Your task to perform on an android device: find which apps use the phone's location Image 0: 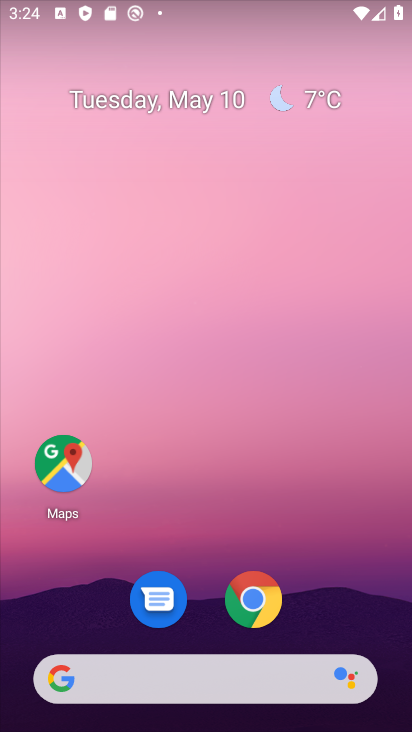
Step 0: drag from (191, 712) to (192, 47)
Your task to perform on an android device: find which apps use the phone's location Image 1: 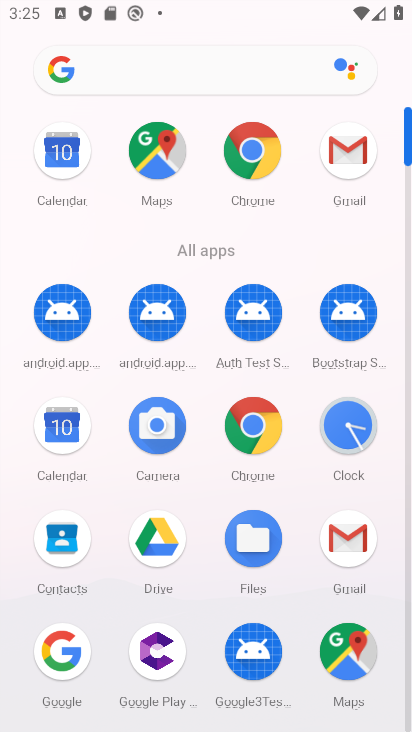
Step 1: drag from (263, 526) to (247, 245)
Your task to perform on an android device: find which apps use the phone's location Image 2: 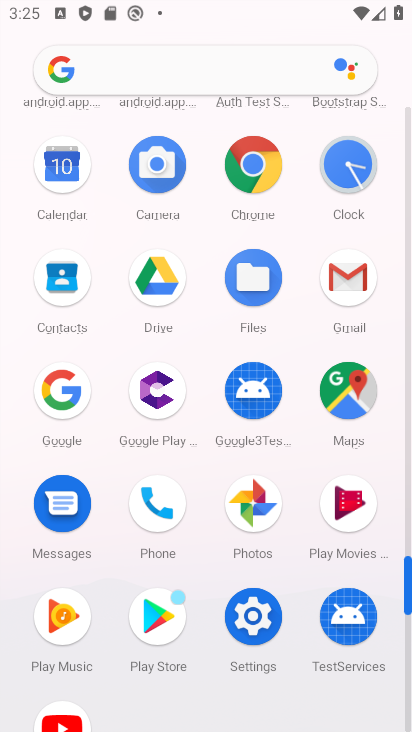
Step 2: click (249, 607)
Your task to perform on an android device: find which apps use the phone's location Image 3: 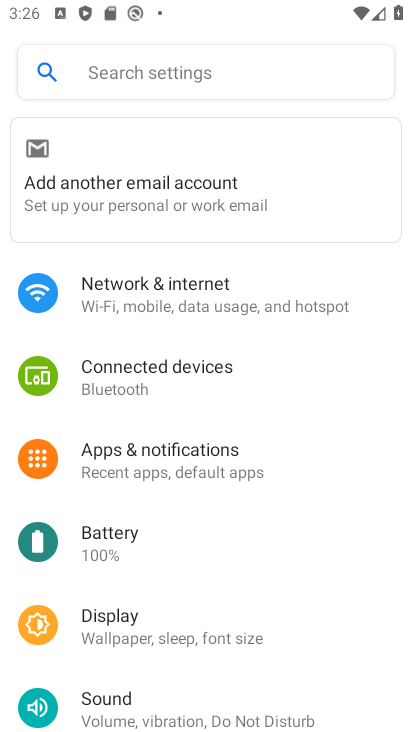
Step 3: drag from (173, 555) to (173, 323)
Your task to perform on an android device: find which apps use the phone's location Image 4: 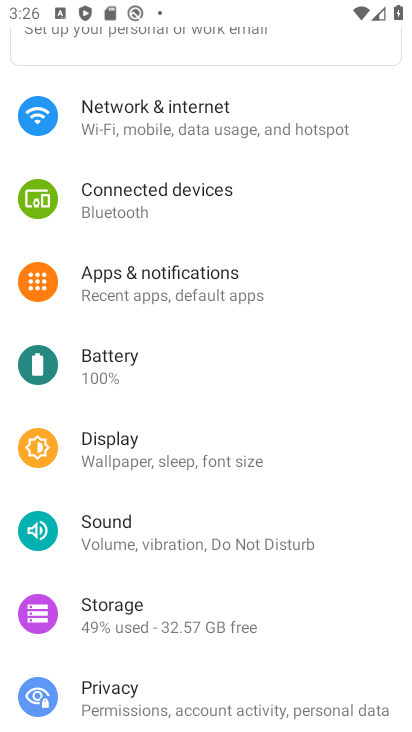
Step 4: drag from (188, 445) to (180, 328)
Your task to perform on an android device: find which apps use the phone's location Image 5: 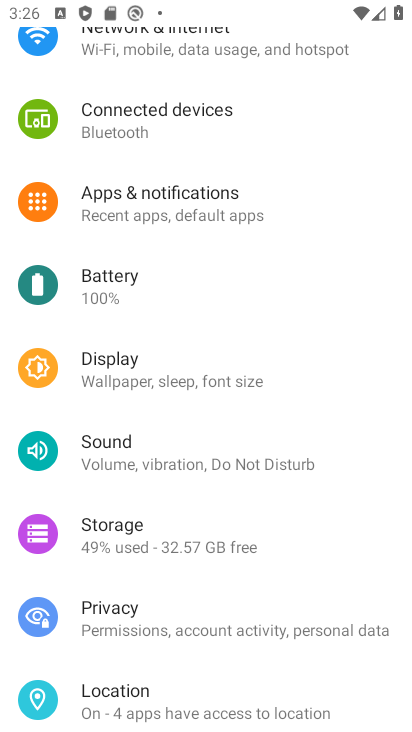
Step 5: click (154, 710)
Your task to perform on an android device: find which apps use the phone's location Image 6: 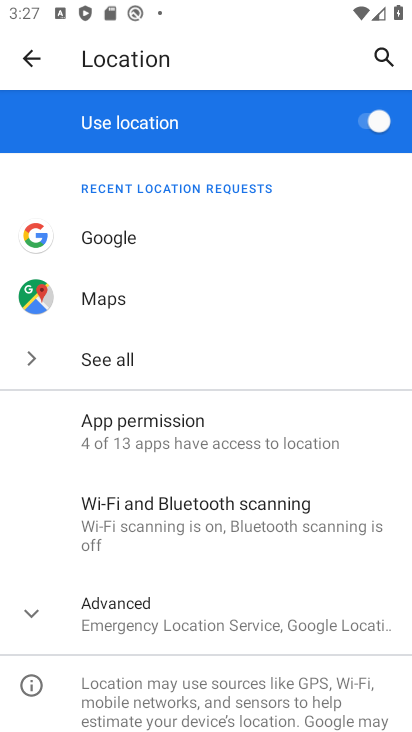
Step 6: click (182, 441)
Your task to perform on an android device: find which apps use the phone's location Image 7: 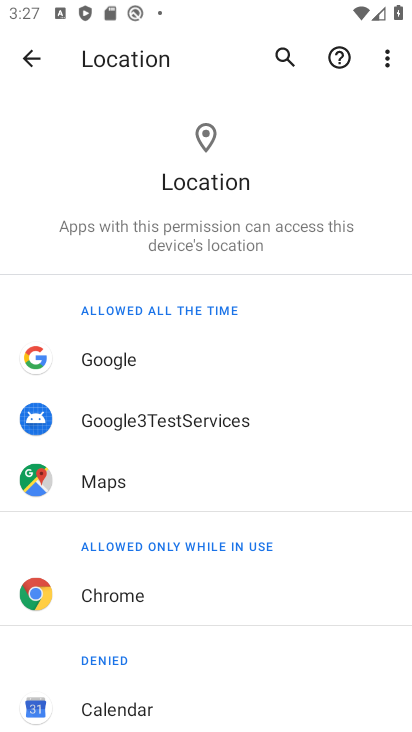
Step 7: task complete